Your task to perform on an android device: Show me popular games on the Play Store Image 0: 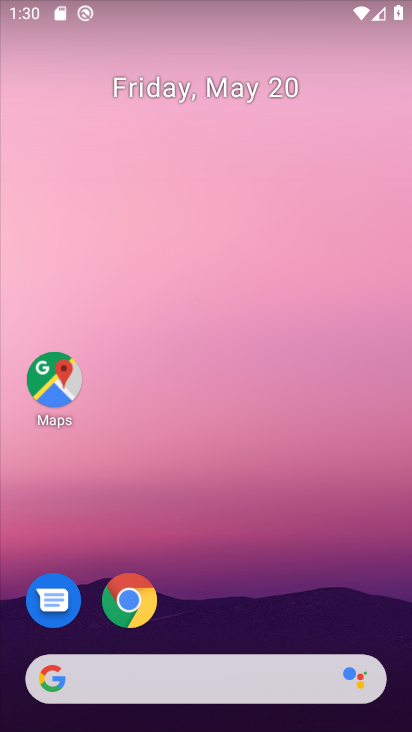
Step 0: drag from (301, 520) to (200, 56)
Your task to perform on an android device: Show me popular games on the Play Store Image 1: 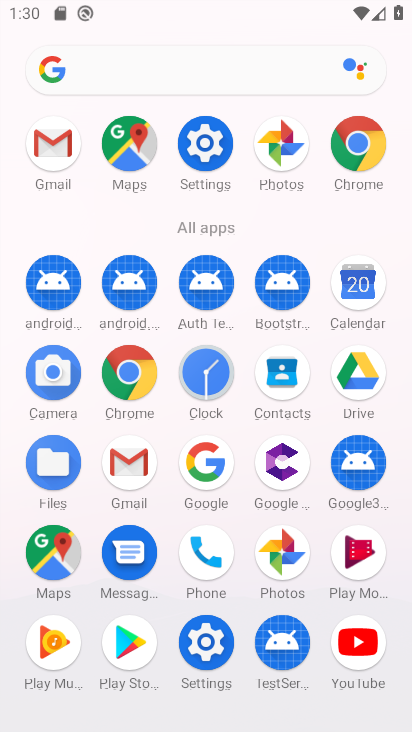
Step 1: click (128, 628)
Your task to perform on an android device: Show me popular games on the Play Store Image 2: 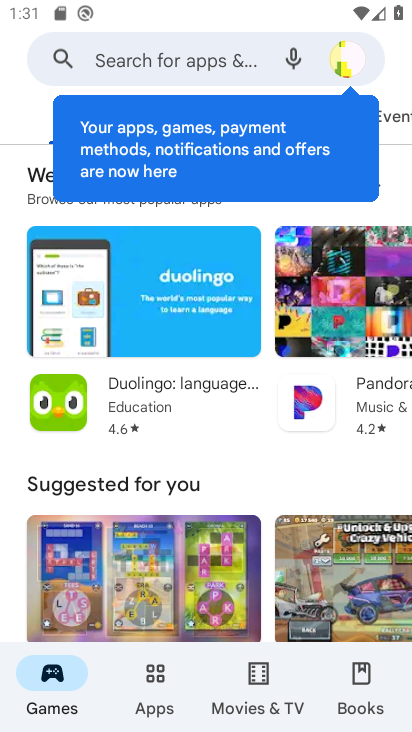
Step 2: click (22, 125)
Your task to perform on an android device: Show me popular games on the Play Store Image 3: 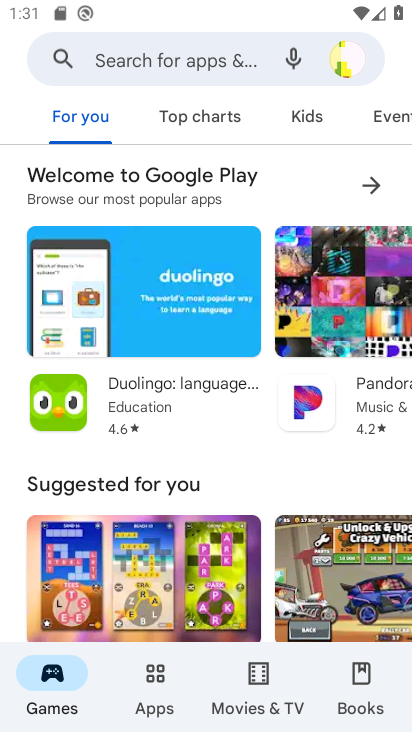
Step 3: click (202, 104)
Your task to perform on an android device: Show me popular games on the Play Store Image 4: 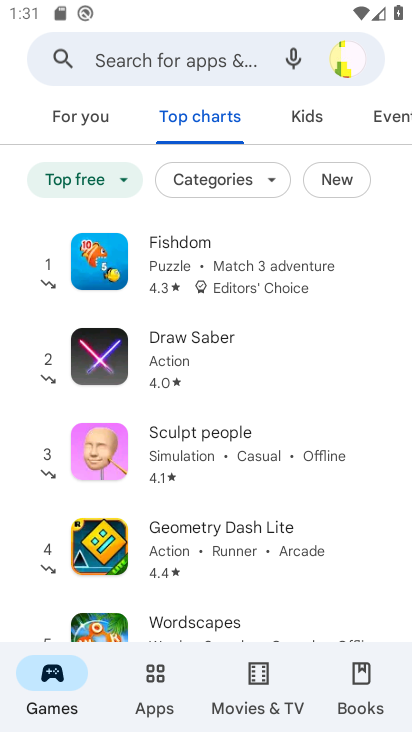
Step 4: task complete